Your task to perform on an android device: Is it going to rain today? Image 0: 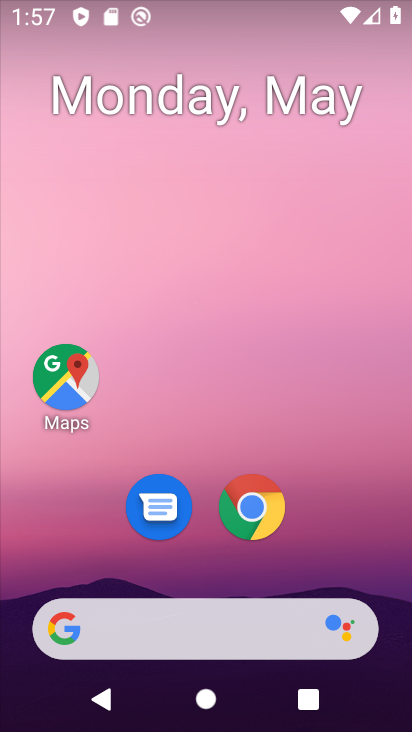
Step 0: click (172, 615)
Your task to perform on an android device: Is it going to rain today? Image 1: 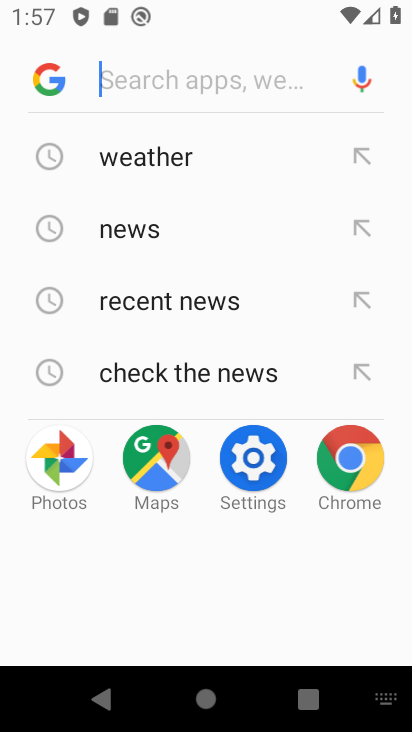
Step 1: type "Is it going to rain today?"
Your task to perform on an android device: Is it going to rain today? Image 2: 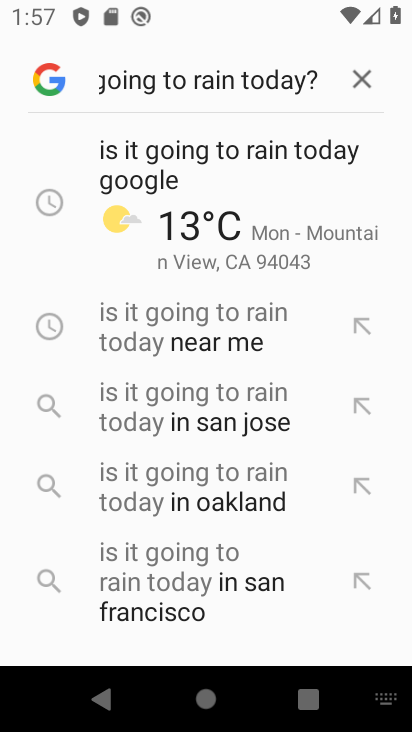
Step 2: click (225, 178)
Your task to perform on an android device: Is it going to rain today? Image 3: 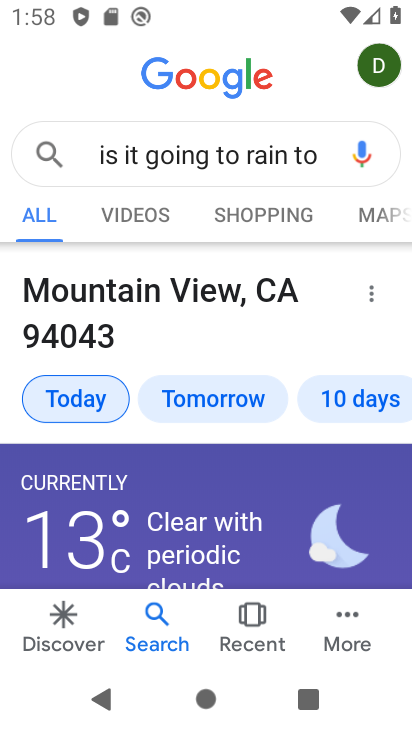
Step 3: task complete